Your task to perform on an android device: Set the phone to "Do not disturb". Image 0: 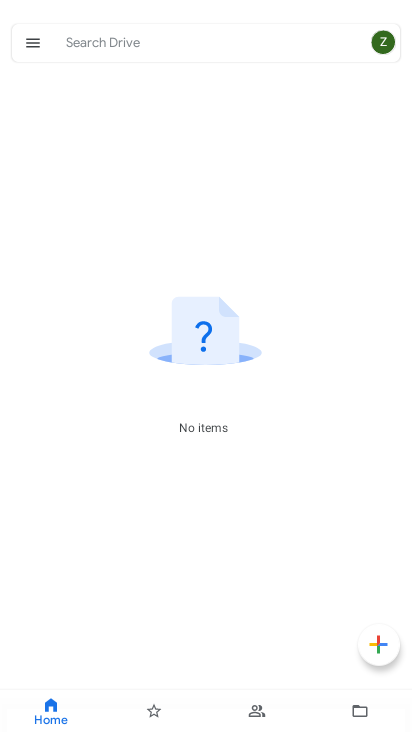
Step 0: press home button
Your task to perform on an android device: Set the phone to "Do not disturb". Image 1: 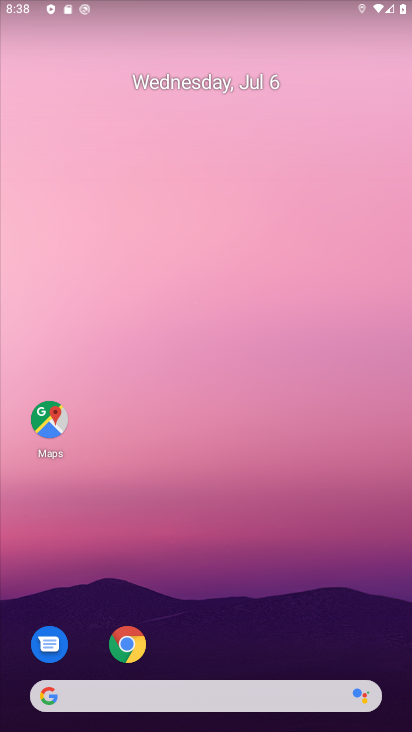
Step 1: drag from (199, 659) to (216, 54)
Your task to perform on an android device: Set the phone to "Do not disturb". Image 2: 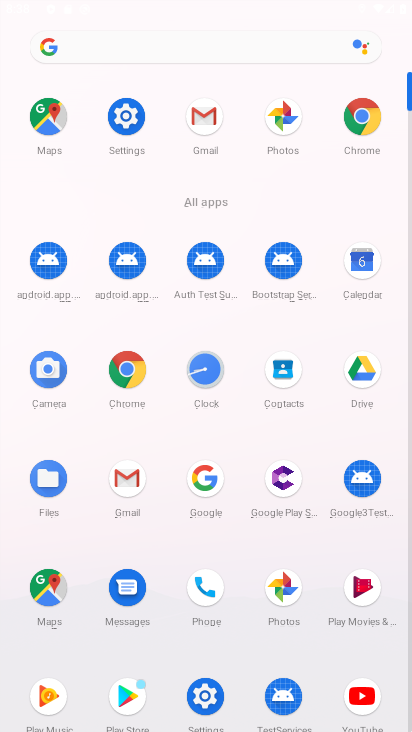
Step 2: drag from (231, 0) to (117, 487)
Your task to perform on an android device: Set the phone to "Do not disturb". Image 3: 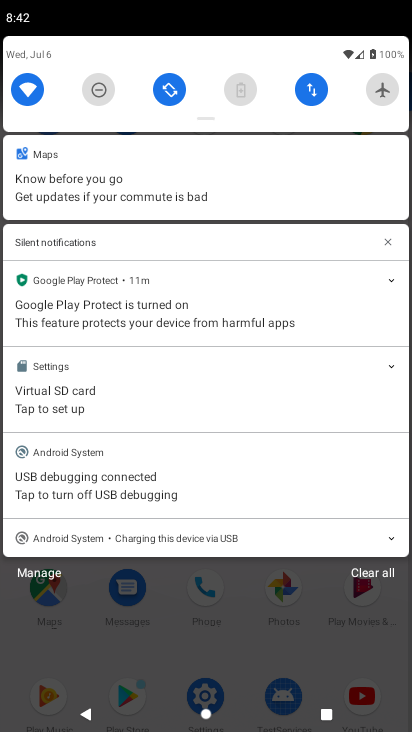
Step 3: click (101, 86)
Your task to perform on an android device: Set the phone to "Do not disturb". Image 4: 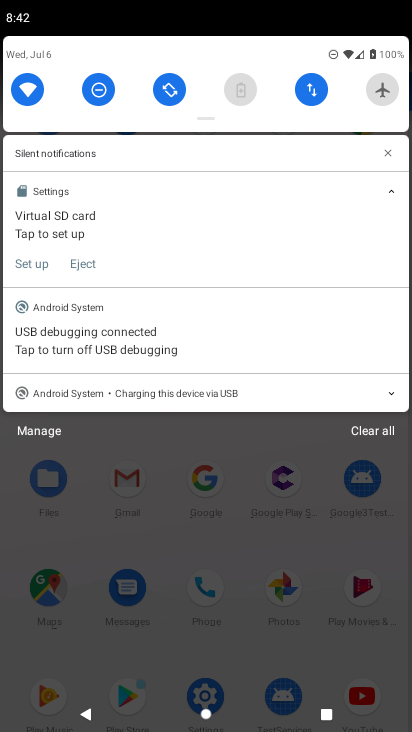
Step 4: task complete